Your task to perform on an android device: open app "Cash App" (install if not already installed) Image 0: 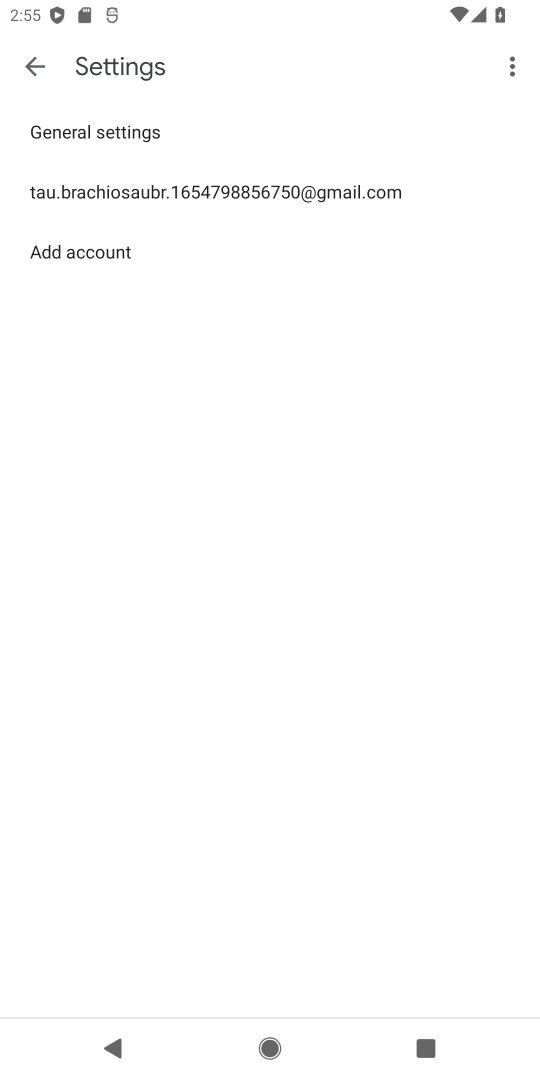
Step 0: press home button
Your task to perform on an android device: open app "Cash App" (install if not already installed) Image 1: 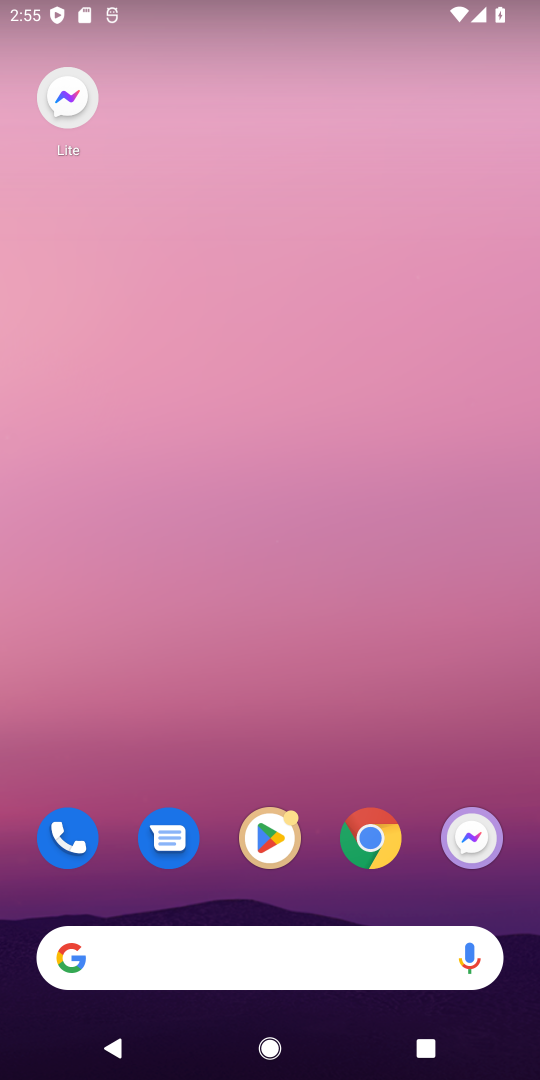
Step 1: click (274, 842)
Your task to perform on an android device: open app "Cash App" (install if not already installed) Image 2: 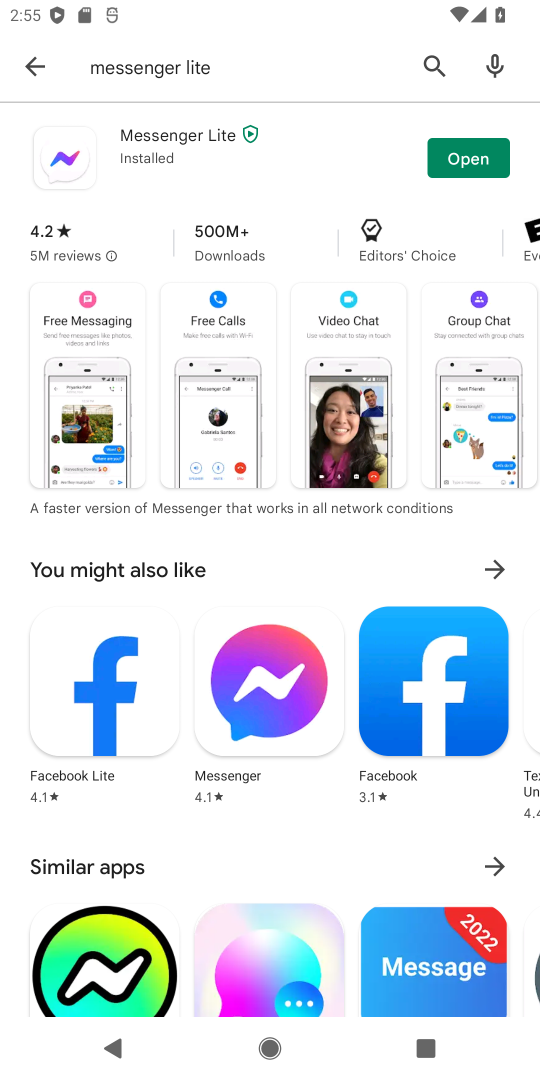
Step 2: press home button
Your task to perform on an android device: open app "Cash App" (install if not already installed) Image 3: 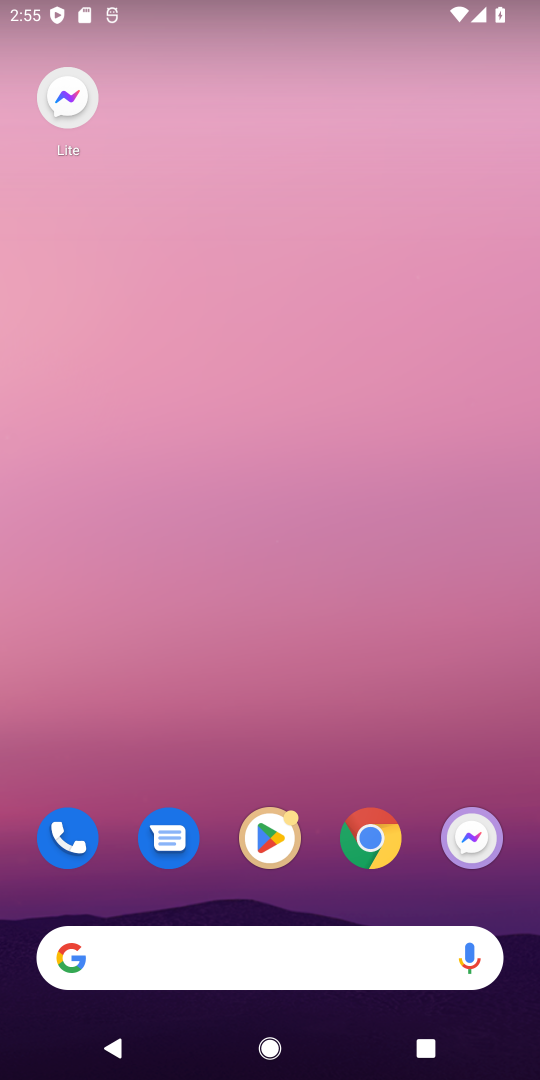
Step 3: click (267, 819)
Your task to perform on an android device: open app "Cash App" (install if not already installed) Image 4: 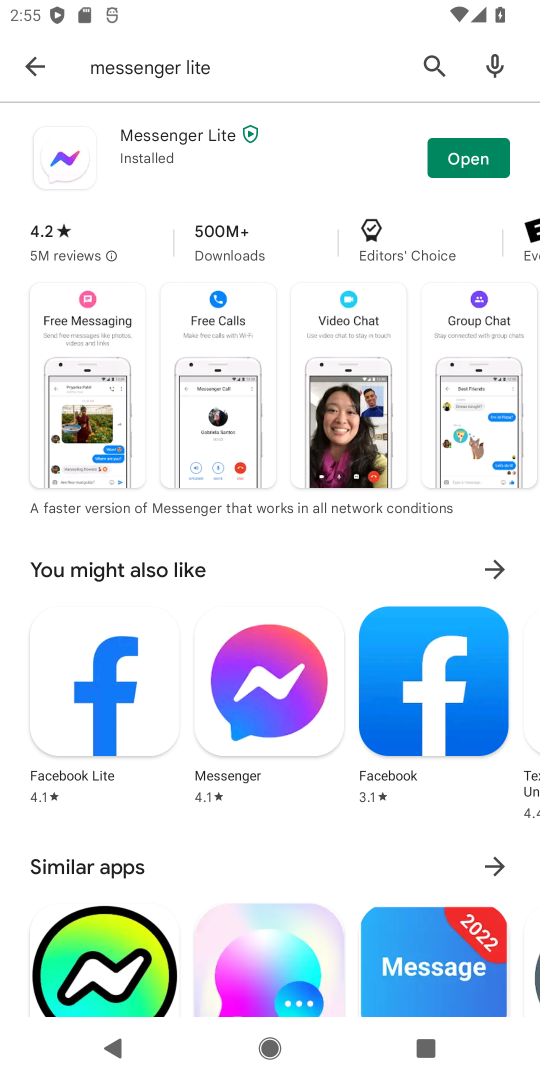
Step 4: click (38, 52)
Your task to perform on an android device: open app "Cash App" (install if not already installed) Image 5: 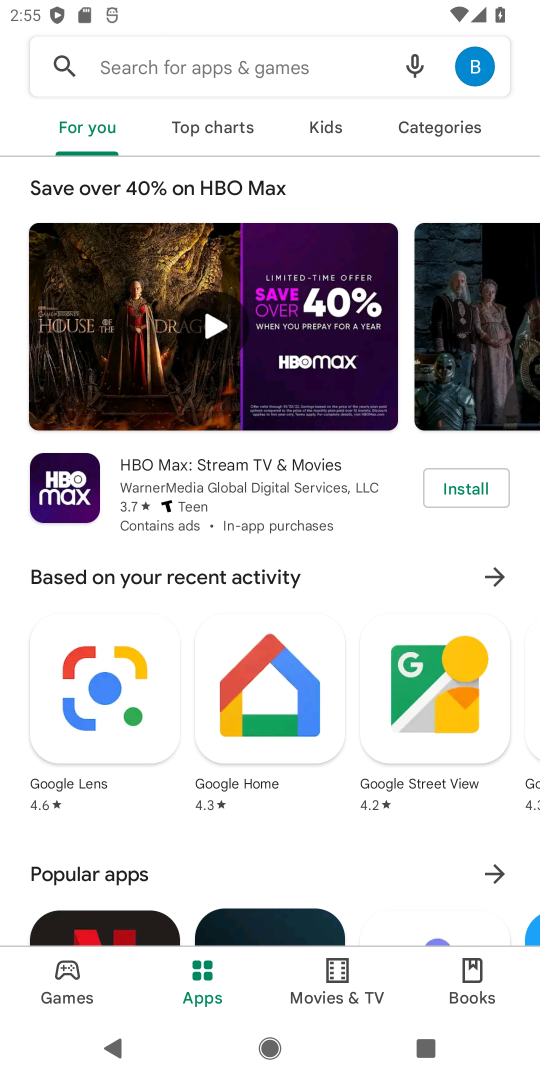
Step 5: click (175, 80)
Your task to perform on an android device: open app "Cash App" (install if not already installed) Image 6: 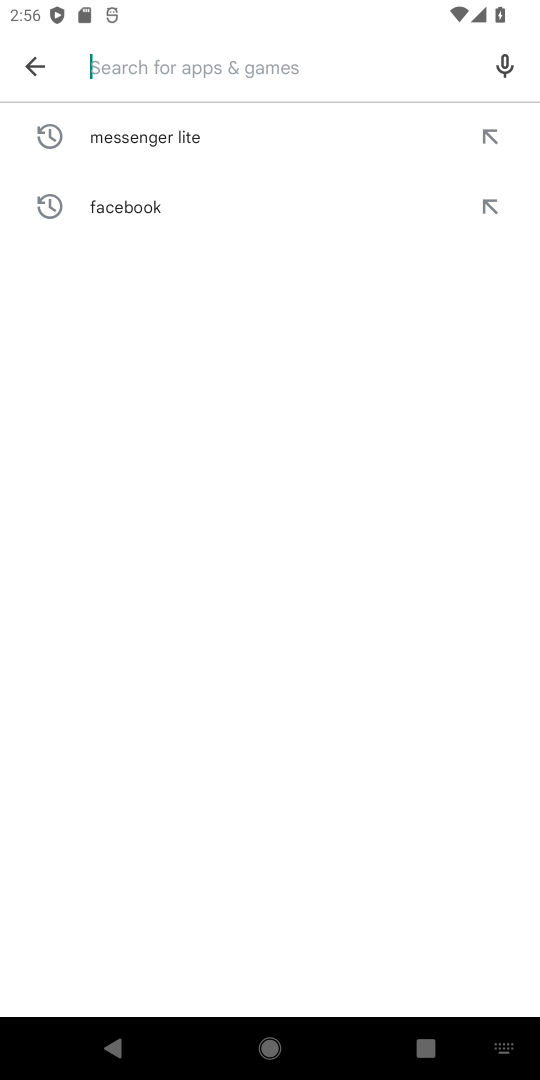
Step 6: type "Cash App"
Your task to perform on an android device: open app "Cash App" (install if not already installed) Image 7: 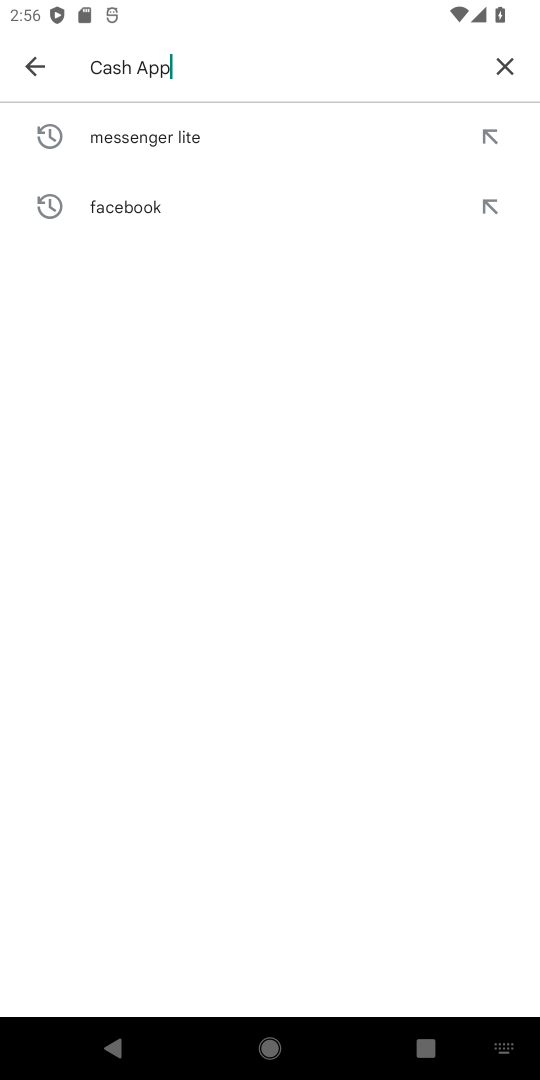
Step 7: type ""
Your task to perform on an android device: open app "Cash App" (install if not already installed) Image 8: 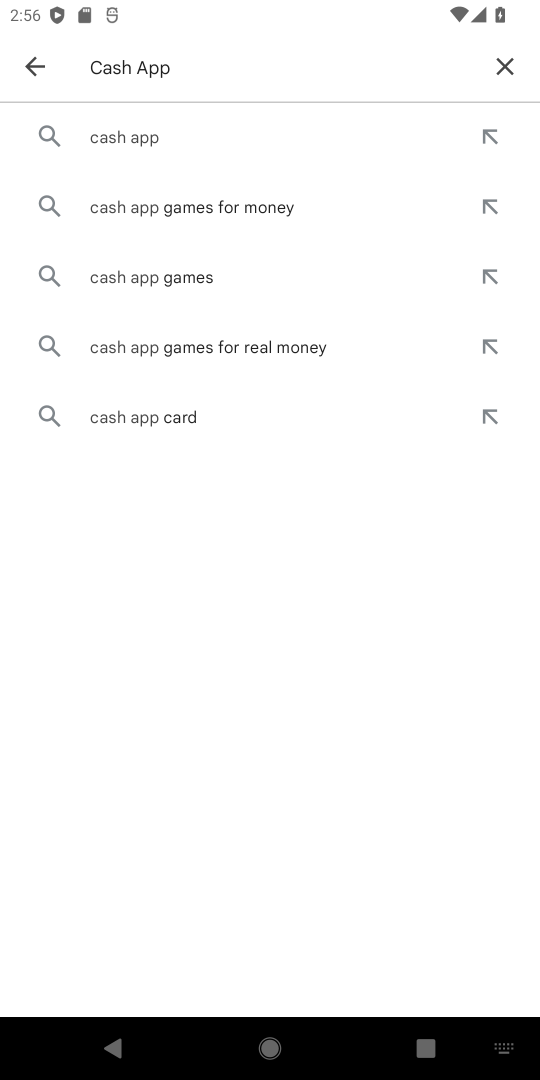
Step 8: click (188, 146)
Your task to perform on an android device: open app "Cash App" (install if not already installed) Image 9: 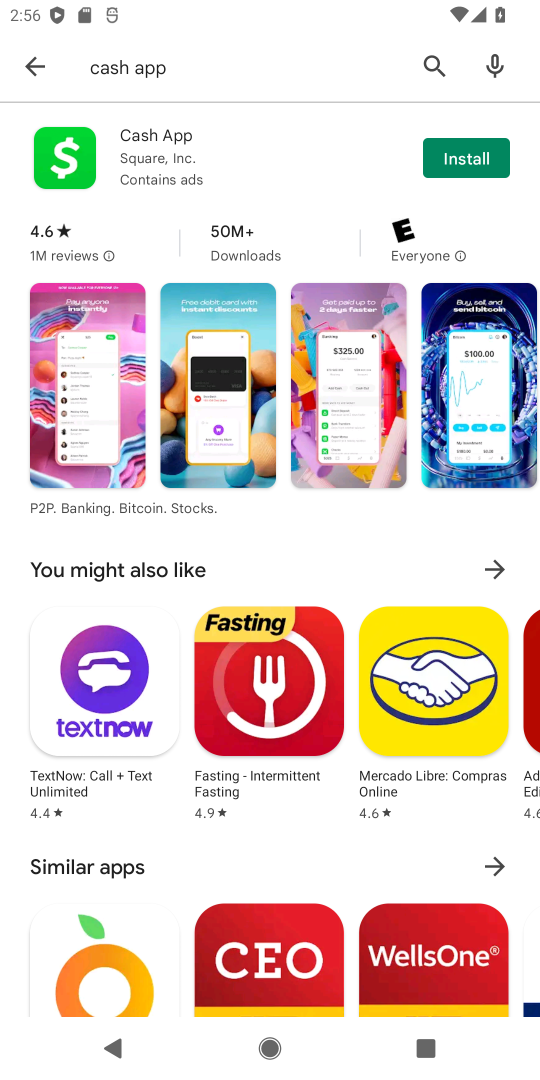
Step 9: click (507, 168)
Your task to perform on an android device: open app "Cash App" (install if not already installed) Image 10: 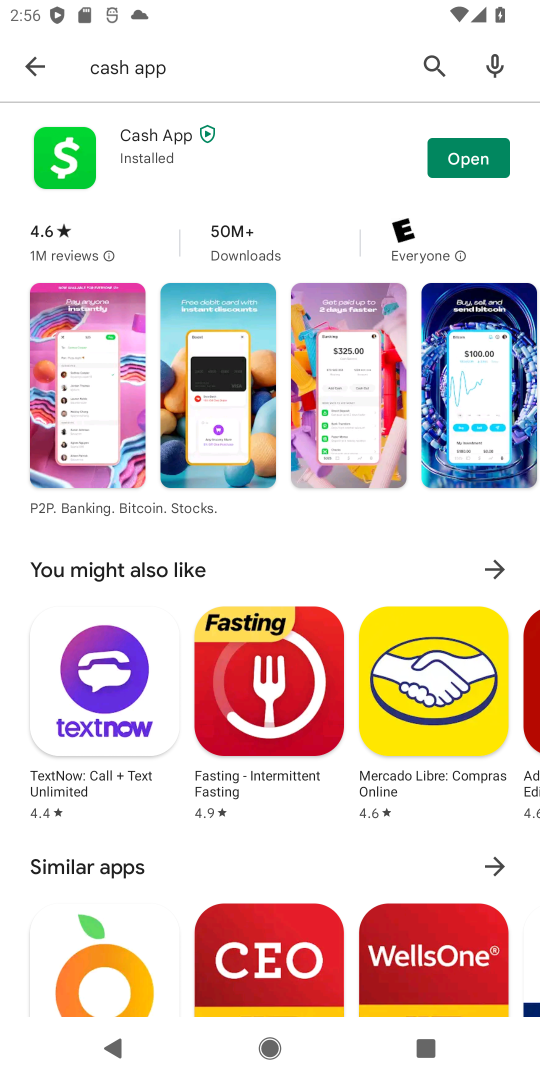
Step 10: click (475, 155)
Your task to perform on an android device: open app "Cash App" (install if not already installed) Image 11: 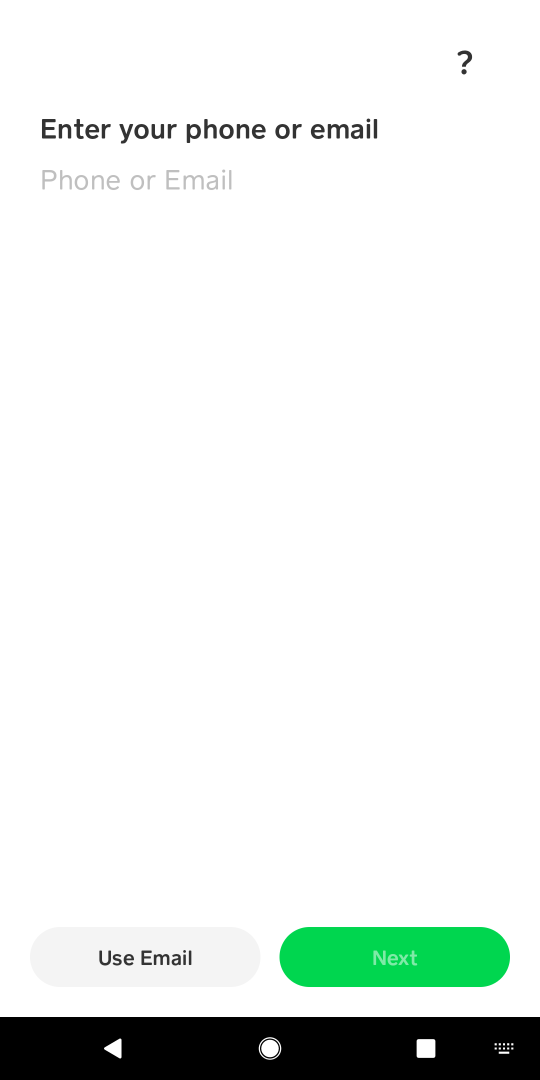
Step 11: task complete